Your task to perform on an android device: What's the weather? Image 0: 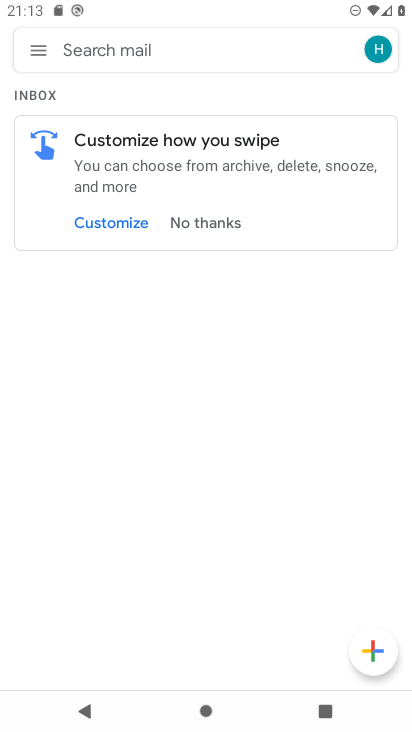
Step 0: press home button
Your task to perform on an android device: What's the weather? Image 1: 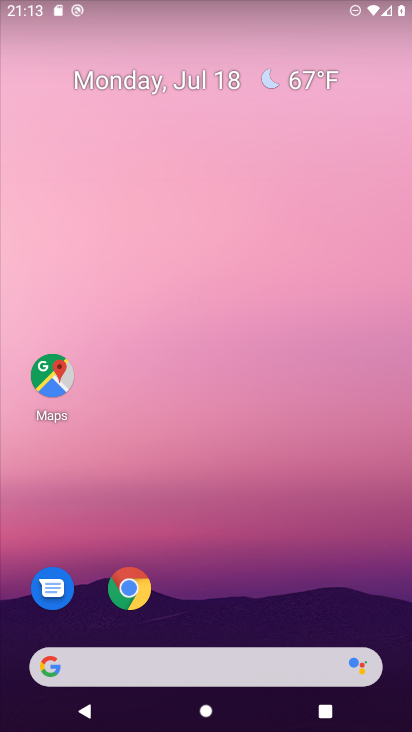
Step 1: drag from (4, 280) to (404, 261)
Your task to perform on an android device: What's the weather? Image 2: 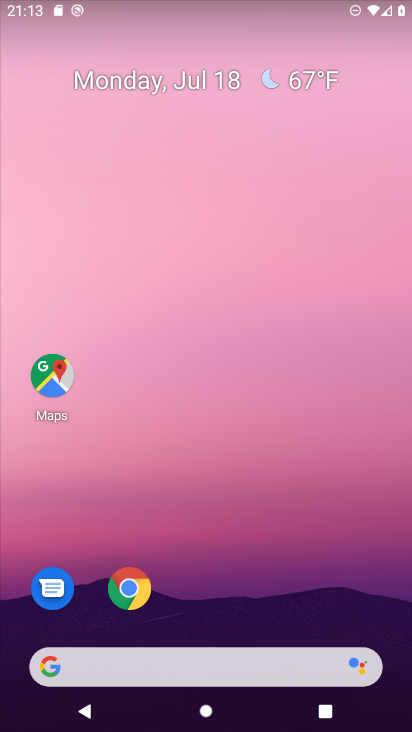
Step 2: drag from (8, 308) to (402, 320)
Your task to perform on an android device: What's the weather? Image 3: 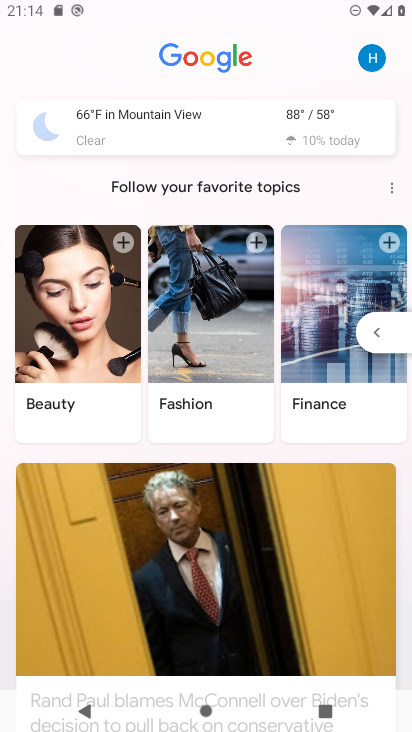
Step 3: click (309, 117)
Your task to perform on an android device: What's the weather? Image 4: 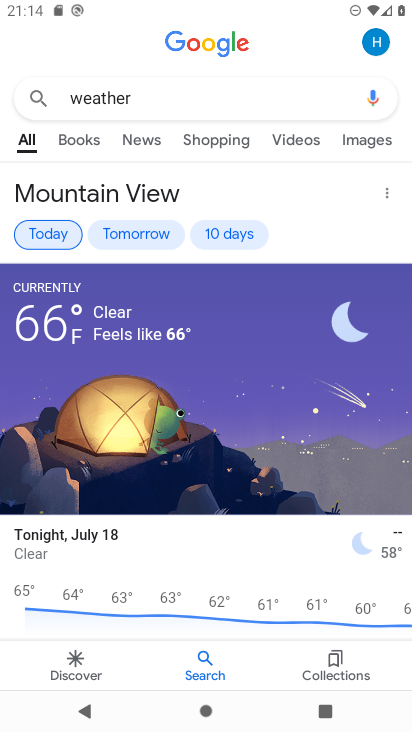
Step 4: task complete